Your task to perform on an android device: Open location settings Image 0: 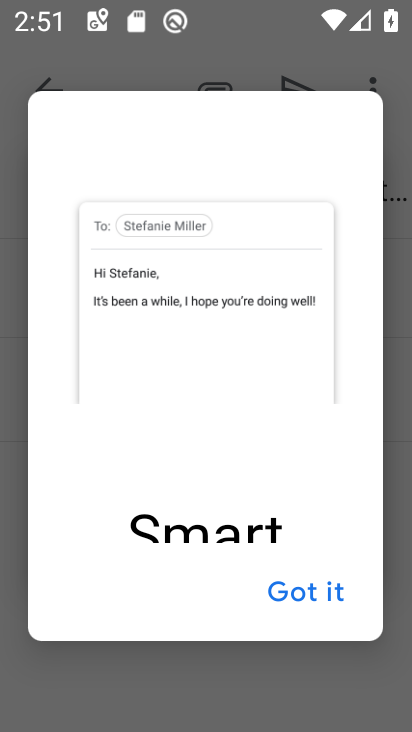
Step 0: press home button
Your task to perform on an android device: Open location settings Image 1: 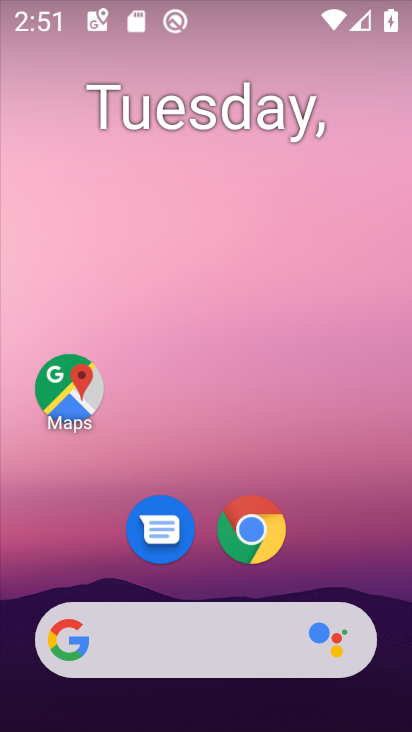
Step 1: drag from (328, 536) to (330, 268)
Your task to perform on an android device: Open location settings Image 2: 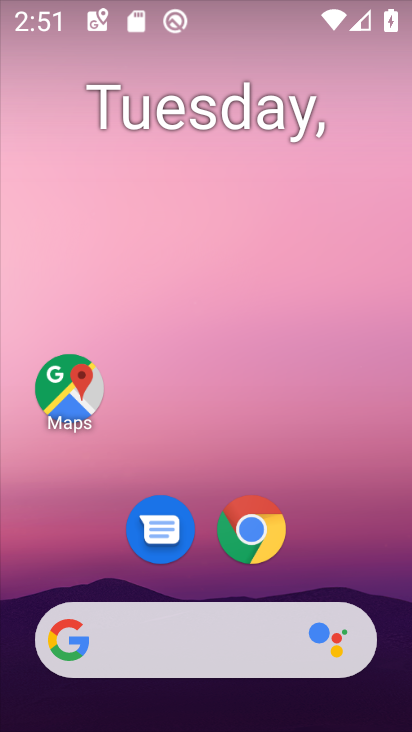
Step 2: drag from (312, 536) to (334, 131)
Your task to perform on an android device: Open location settings Image 3: 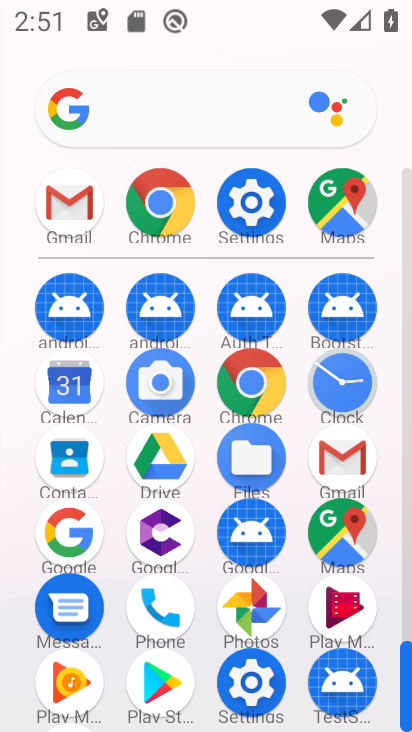
Step 3: click (257, 197)
Your task to perform on an android device: Open location settings Image 4: 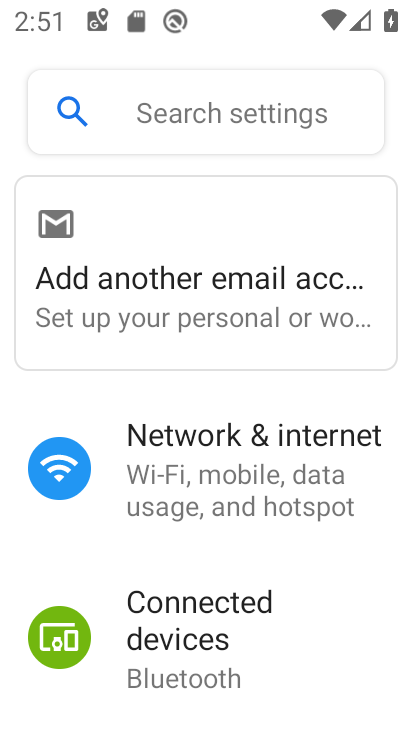
Step 4: drag from (190, 605) to (282, 191)
Your task to perform on an android device: Open location settings Image 5: 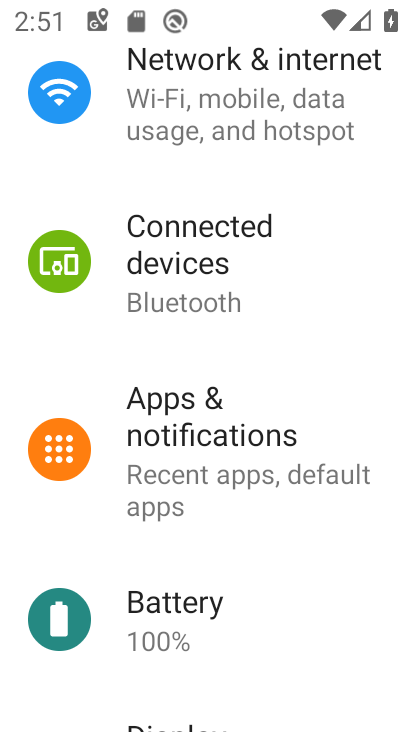
Step 5: drag from (136, 536) to (190, 236)
Your task to perform on an android device: Open location settings Image 6: 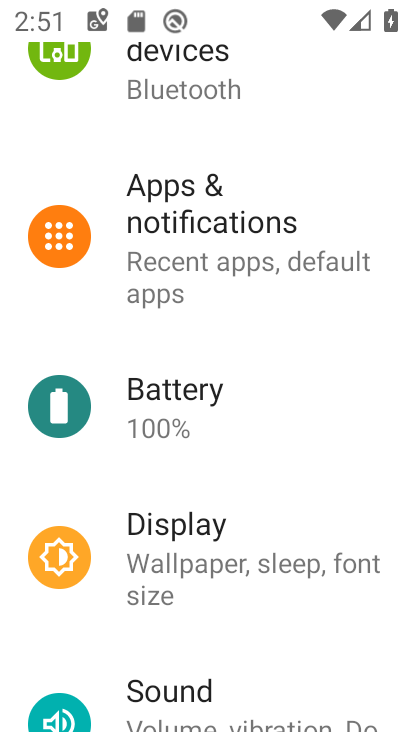
Step 6: drag from (140, 513) to (230, 135)
Your task to perform on an android device: Open location settings Image 7: 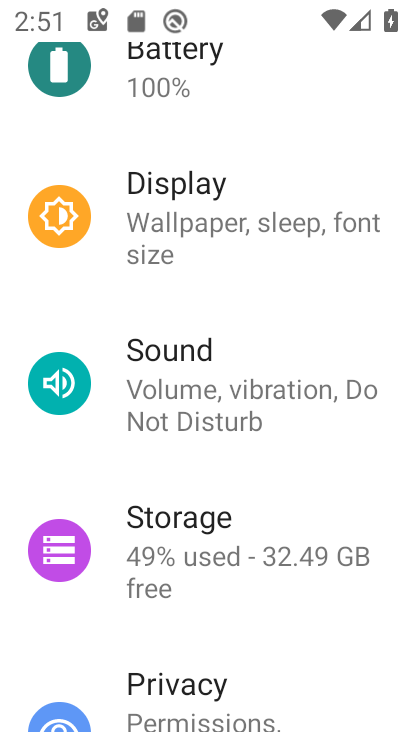
Step 7: drag from (235, 84) to (186, 618)
Your task to perform on an android device: Open location settings Image 8: 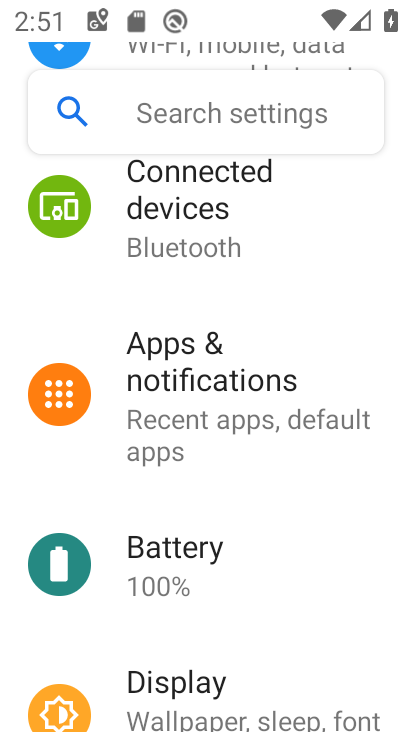
Step 8: drag from (157, 614) to (260, 172)
Your task to perform on an android device: Open location settings Image 9: 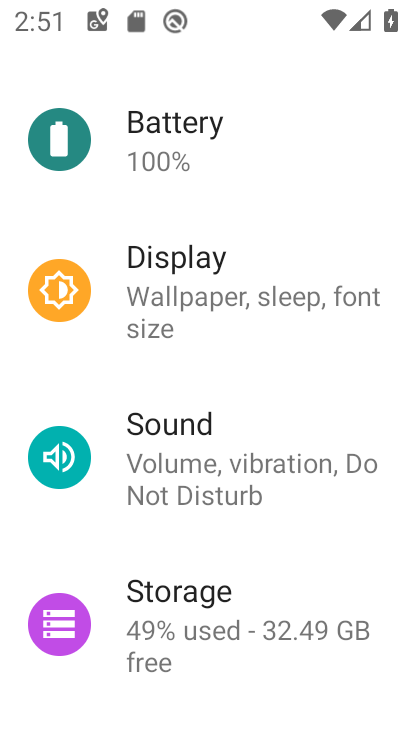
Step 9: drag from (185, 571) to (245, 180)
Your task to perform on an android device: Open location settings Image 10: 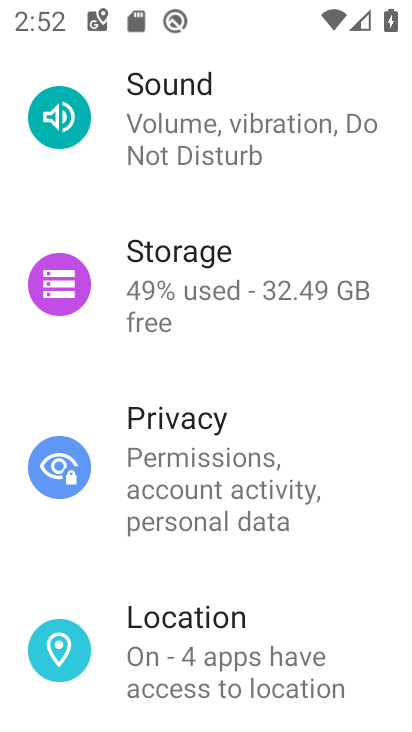
Step 10: click (183, 614)
Your task to perform on an android device: Open location settings Image 11: 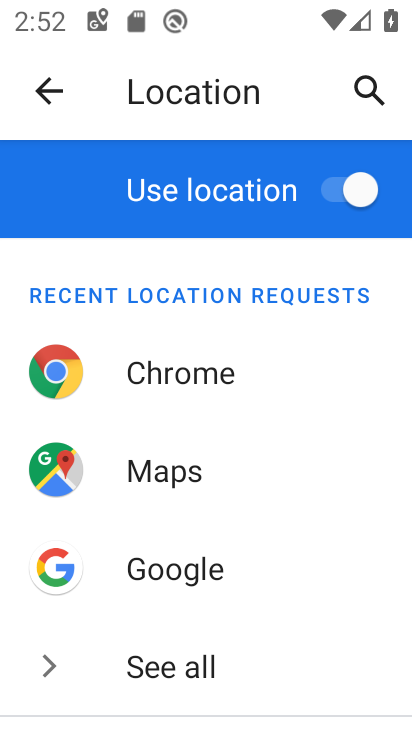
Step 11: task complete